Your task to perform on an android device: add a contact Image 0: 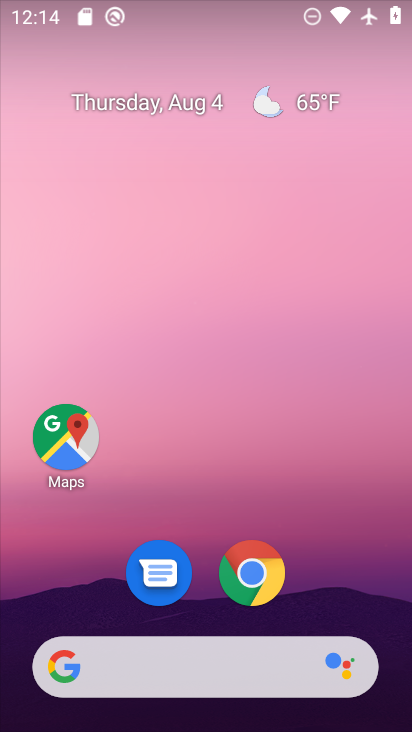
Step 0: drag from (362, 546) to (285, 186)
Your task to perform on an android device: add a contact Image 1: 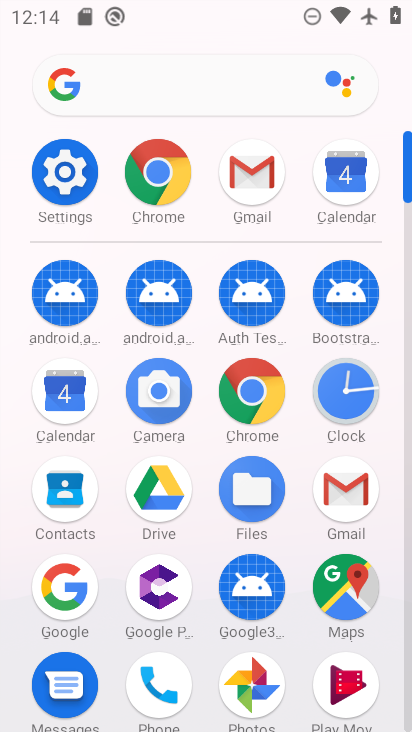
Step 1: click (61, 487)
Your task to perform on an android device: add a contact Image 2: 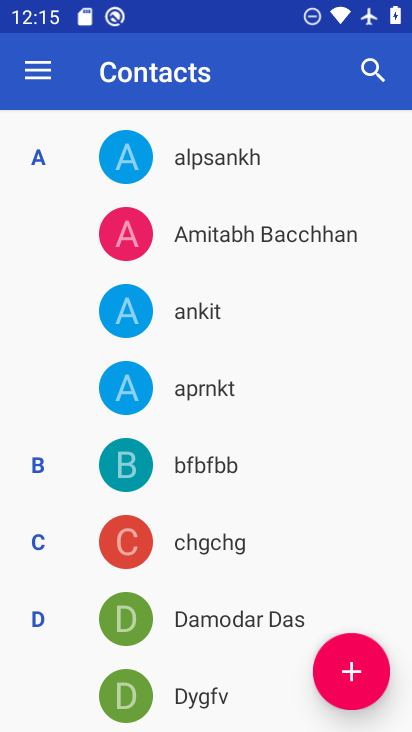
Step 2: click (333, 655)
Your task to perform on an android device: add a contact Image 3: 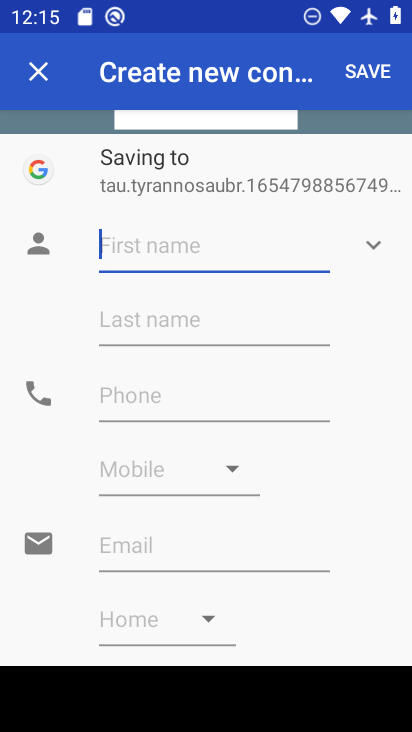
Step 3: type "global"
Your task to perform on an android device: add a contact Image 4: 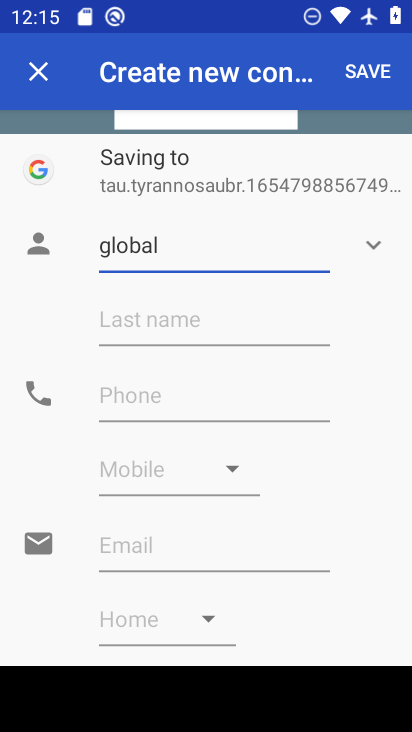
Step 4: click (365, 66)
Your task to perform on an android device: add a contact Image 5: 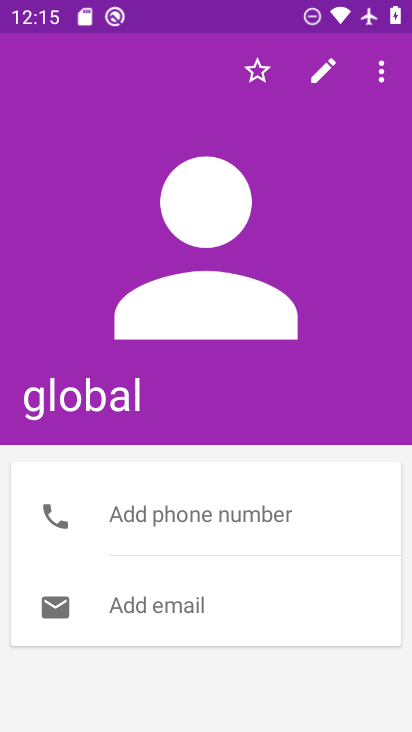
Step 5: task complete